Your task to perform on an android device: Turn off the flashlight Image 0: 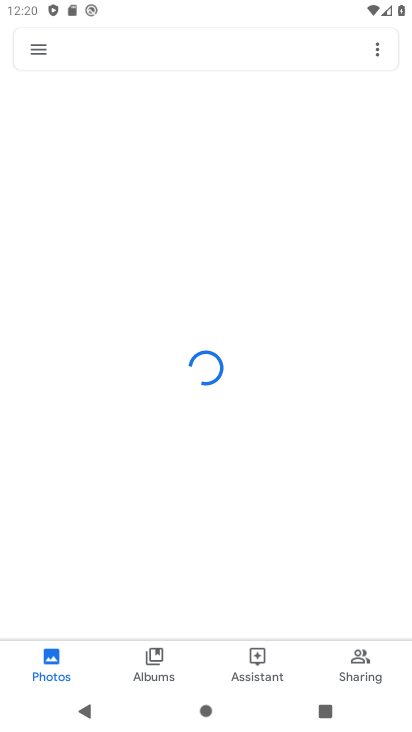
Step 0: press home button
Your task to perform on an android device: Turn off the flashlight Image 1: 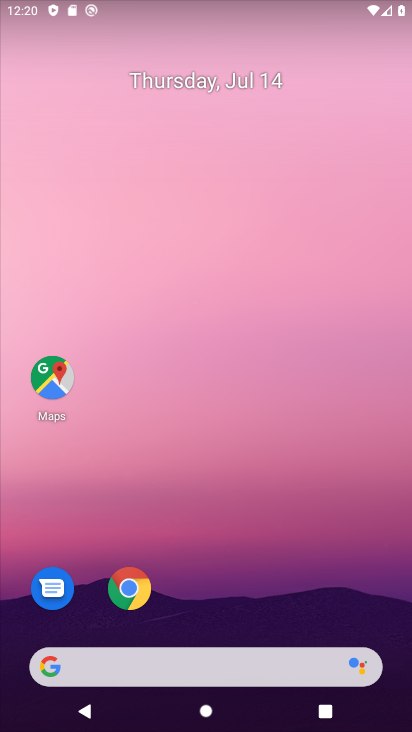
Step 1: task complete